Your task to perform on an android device: turn off wifi Image 0: 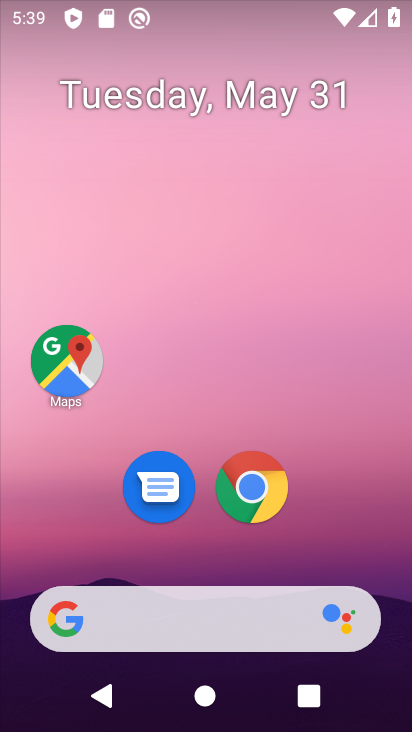
Step 0: drag from (340, 535) to (292, 185)
Your task to perform on an android device: turn off wifi Image 1: 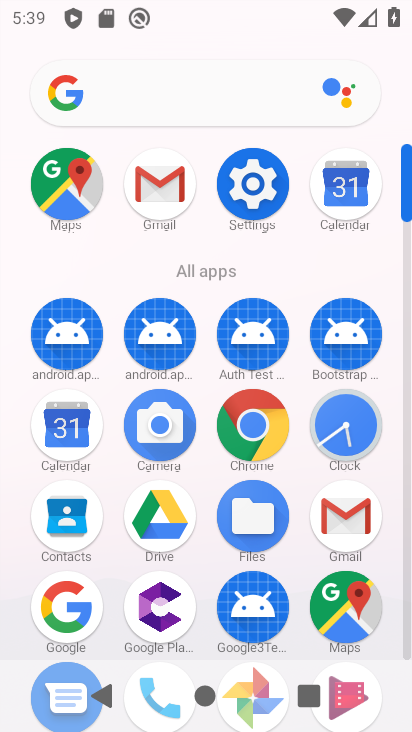
Step 1: click (248, 165)
Your task to perform on an android device: turn off wifi Image 2: 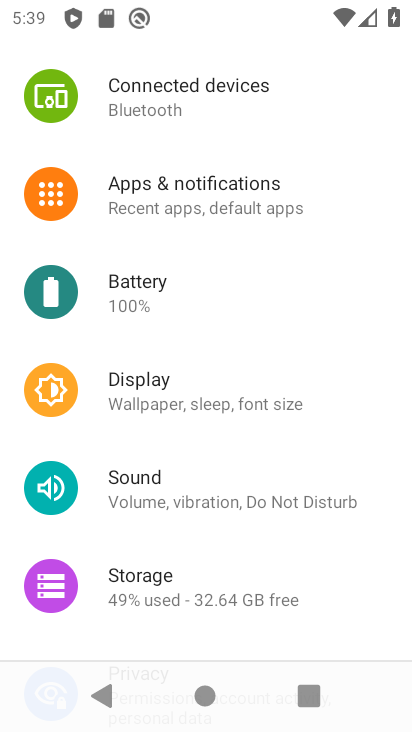
Step 2: drag from (196, 149) to (213, 603)
Your task to perform on an android device: turn off wifi Image 3: 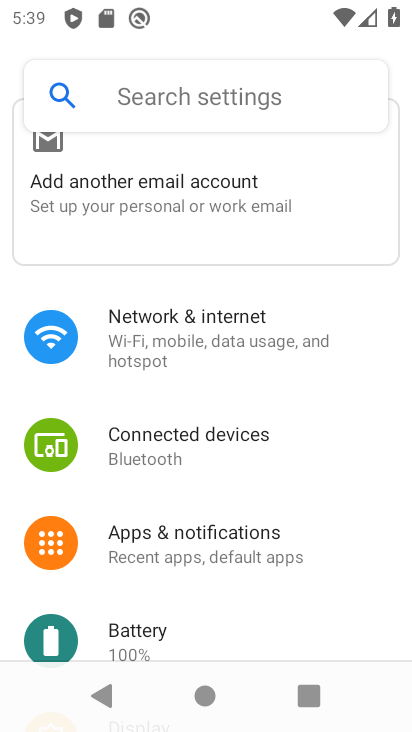
Step 3: click (167, 329)
Your task to perform on an android device: turn off wifi Image 4: 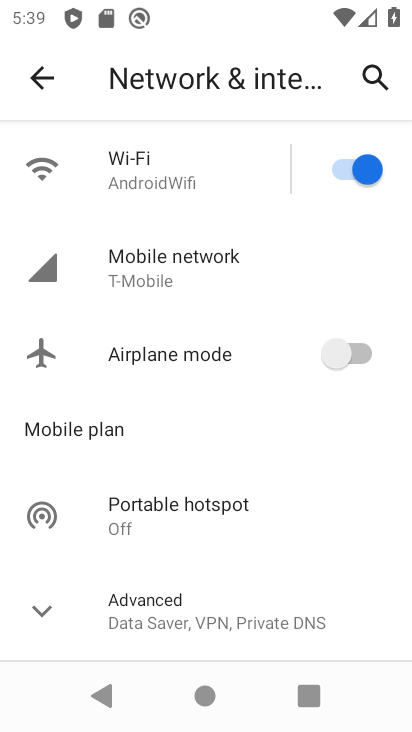
Step 4: click (346, 174)
Your task to perform on an android device: turn off wifi Image 5: 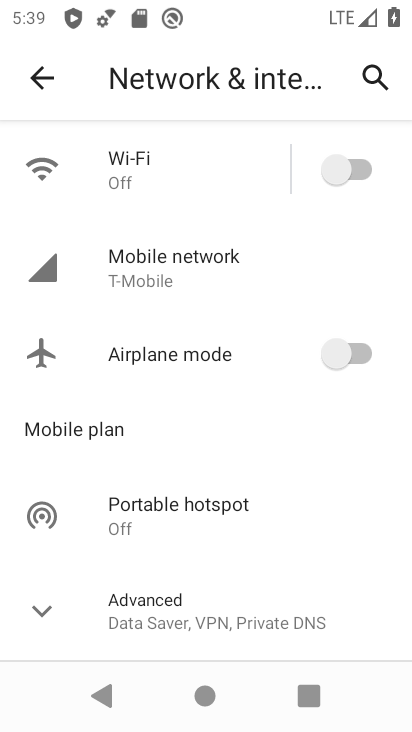
Step 5: task complete